Your task to perform on an android device: What's the weather going to be tomorrow? Image 0: 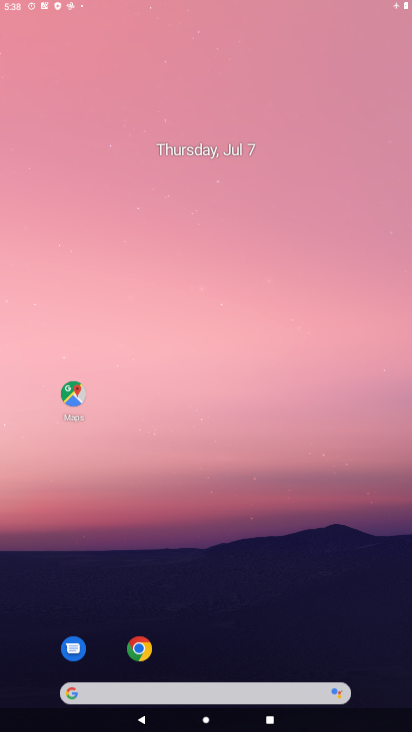
Step 0: drag from (359, 672) to (240, 136)
Your task to perform on an android device: What's the weather going to be tomorrow? Image 1: 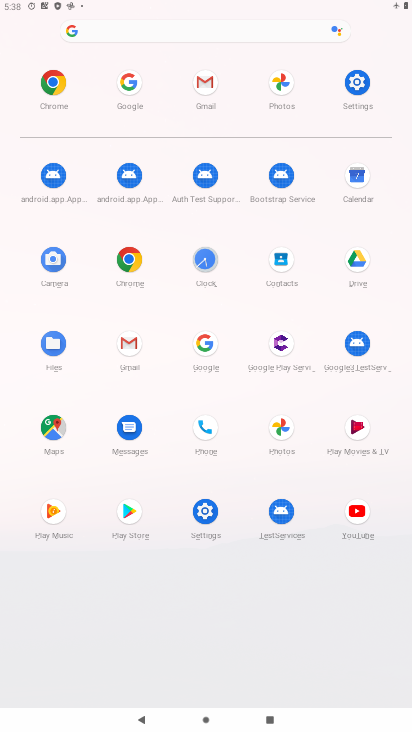
Step 1: click (202, 349)
Your task to perform on an android device: What's the weather going to be tomorrow? Image 2: 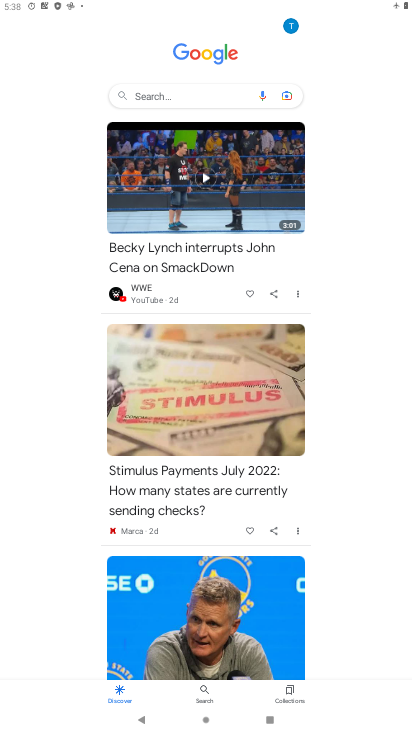
Step 2: click (149, 97)
Your task to perform on an android device: What's the weather going to be tomorrow? Image 3: 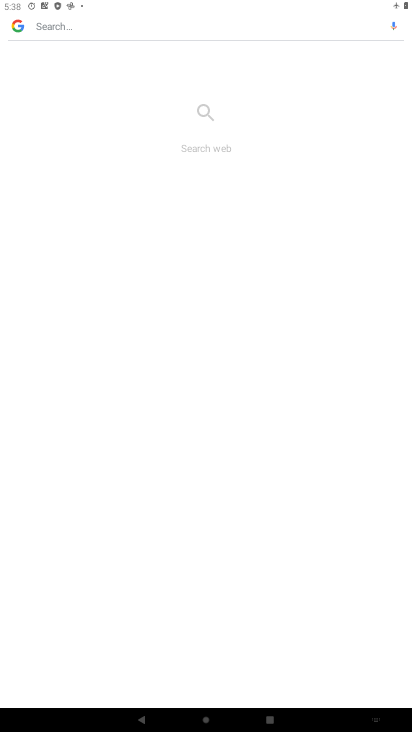
Step 3: type "What's the weather going to be tomorrow?"
Your task to perform on an android device: What's the weather going to be tomorrow? Image 4: 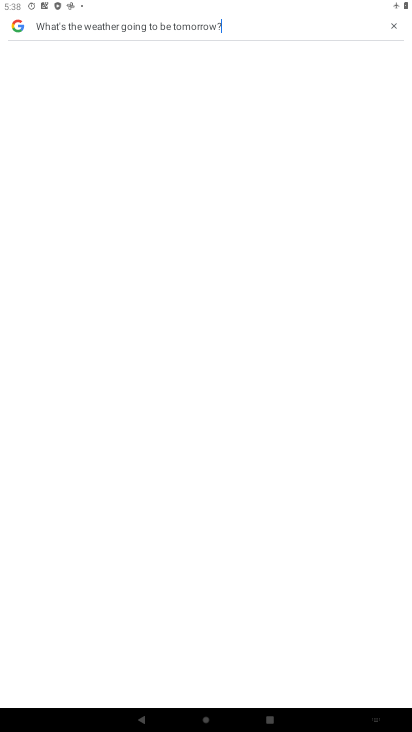
Step 4: task complete